Your task to perform on an android device: Go to internet settings Image 0: 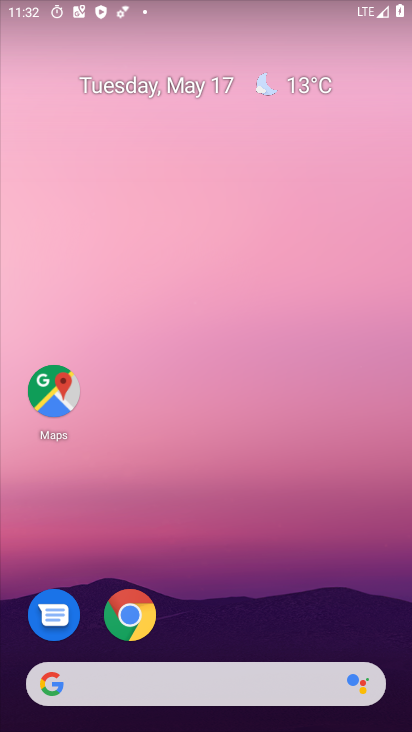
Step 0: drag from (173, 682) to (309, 94)
Your task to perform on an android device: Go to internet settings Image 1: 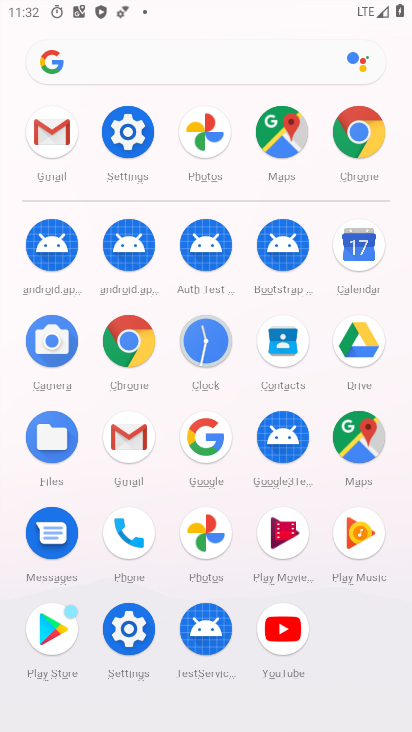
Step 1: click (127, 137)
Your task to perform on an android device: Go to internet settings Image 2: 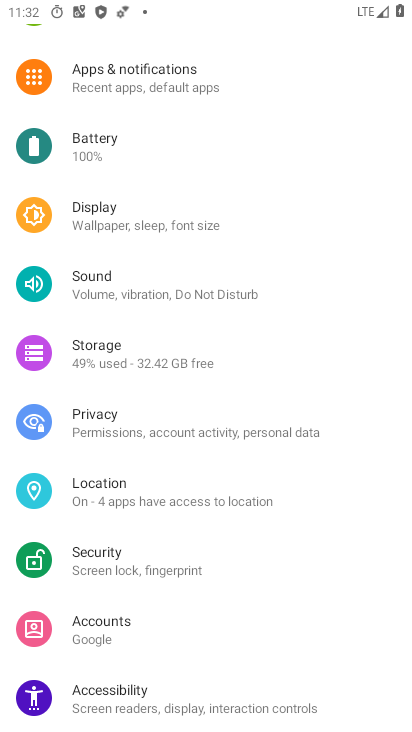
Step 2: drag from (316, 119) to (288, 610)
Your task to perform on an android device: Go to internet settings Image 3: 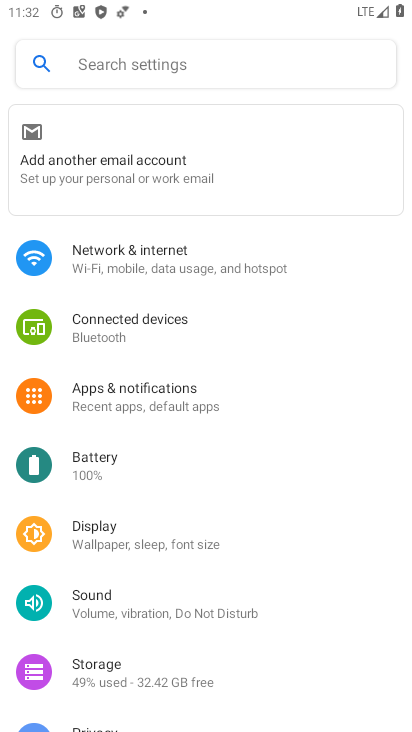
Step 3: click (197, 261)
Your task to perform on an android device: Go to internet settings Image 4: 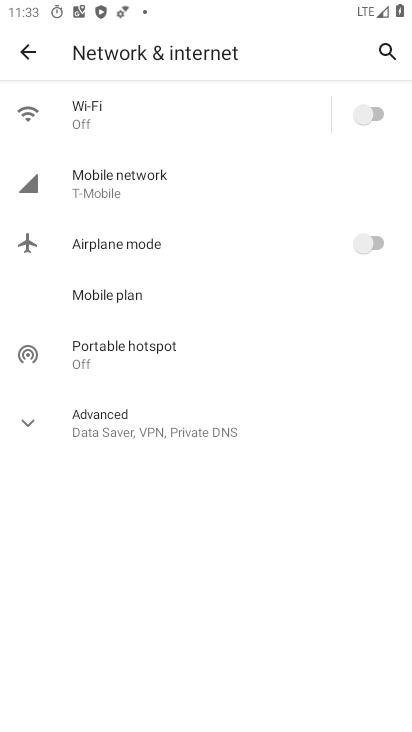
Step 4: task complete